Your task to perform on an android device: Show me popular videos on Youtube Image 0: 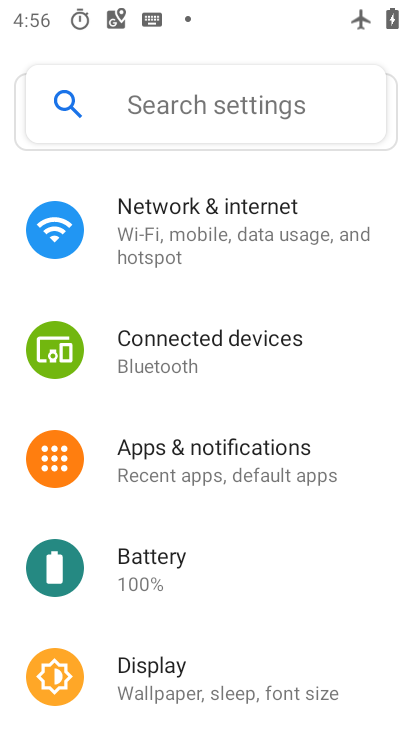
Step 0: press home button
Your task to perform on an android device: Show me popular videos on Youtube Image 1: 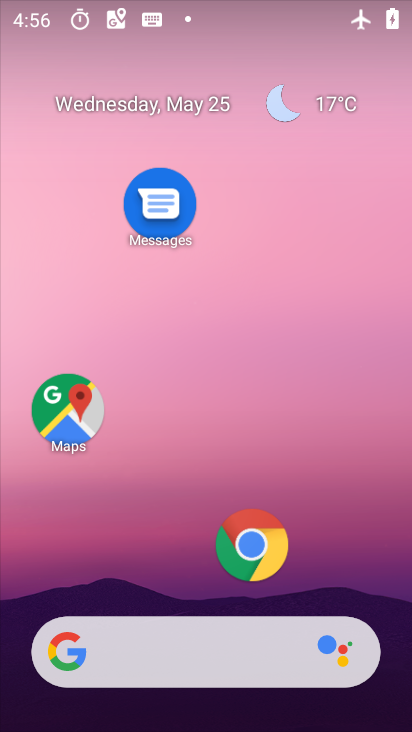
Step 1: drag from (298, 390) to (294, 261)
Your task to perform on an android device: Show me popular videos on Youtube Image 2: 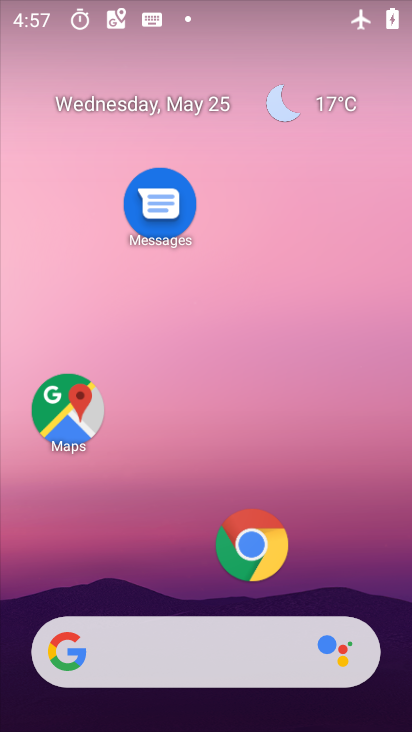
Step 2: drag from (338, 579) to (263, 289)
Your task to perform on an android device: Show me popular videos on Youtube Image 3: 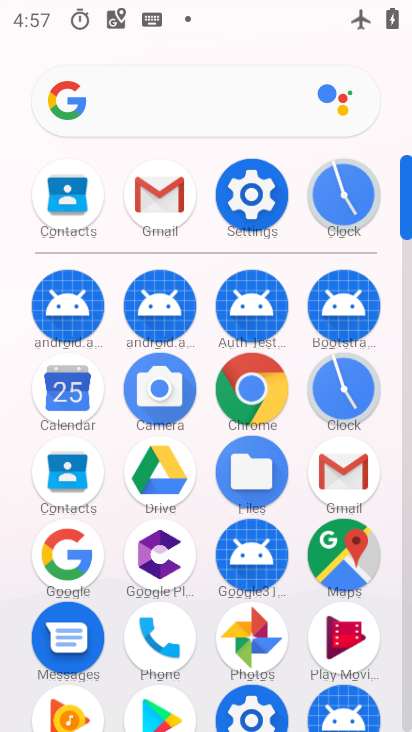
Step 3: drag from (205, 600) to (180, 336)
Your task to perform on an android device: Show me popular videos on Youtube Image 4: 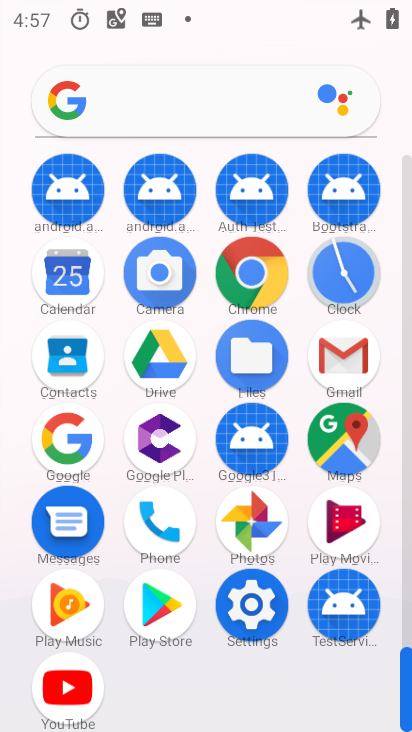
Step 4: click (73, 670)
Your task to perform on an android device: Show me popular videos on Youtube Image 5: 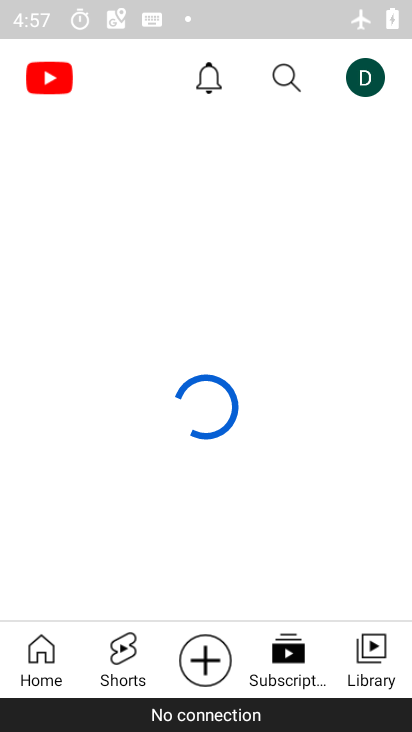
Step 5: click (286, 79)
Your task to perform on an android device: Show me popular videos on Youtube Image 6: 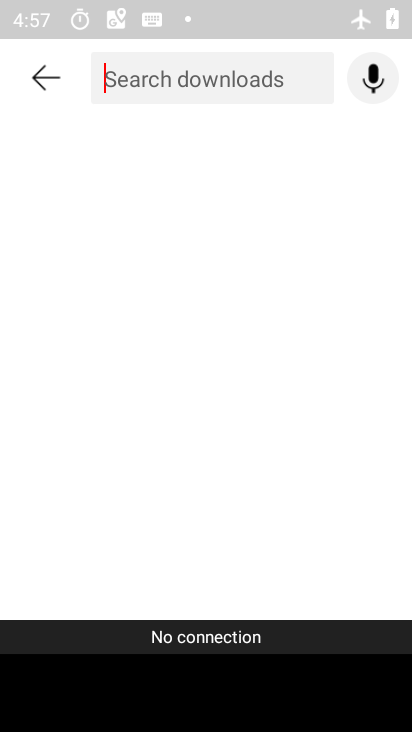
Step 6: type "popular videos"
Your task to perform on an android device: Show me popular videos on Youtube Image 7: 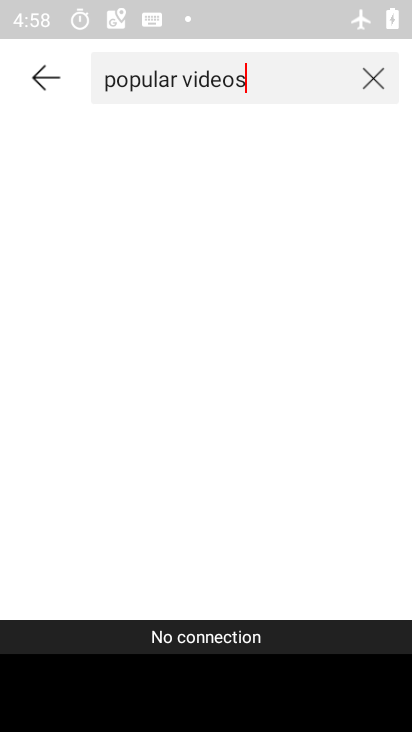
Step 7: task complete